Your task to perform on an android device: turn off javascript in the chrome app Image 0: 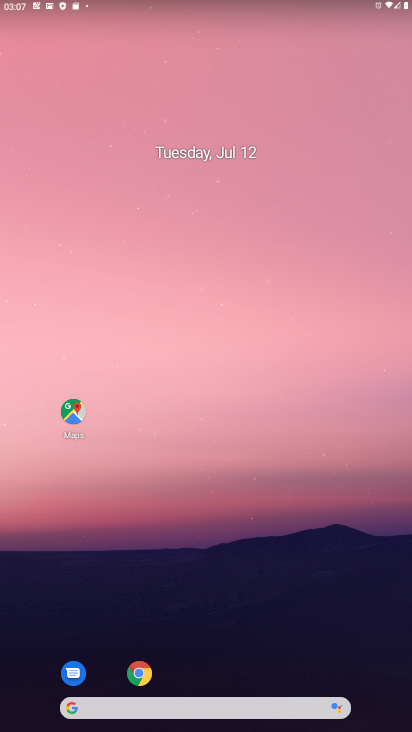
Step 0: press home button
Your task to perform on an android device: turn off javascript in the chrome app Image 1: 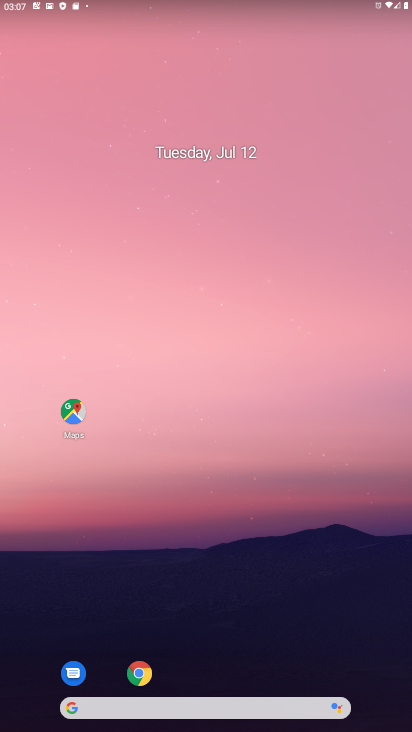
Step 1: press home button
Your task to perform on an android device: turn off javascript in the chrome app Image 2: 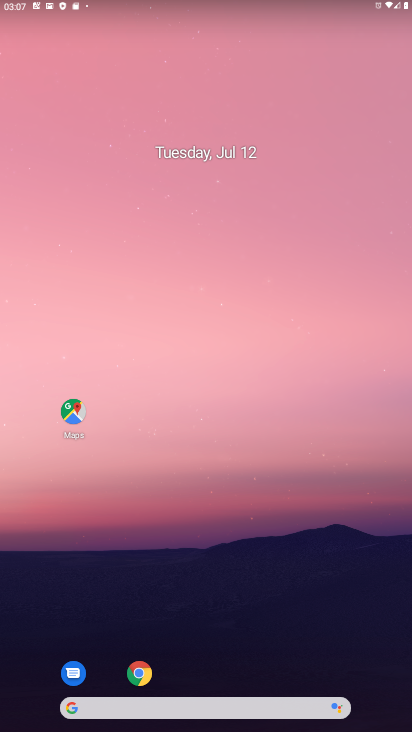
Step 2: drag from (260, 642) to (205, 55)
Your task to perform on an android device: turn off javascript in the chrome app Image 3: 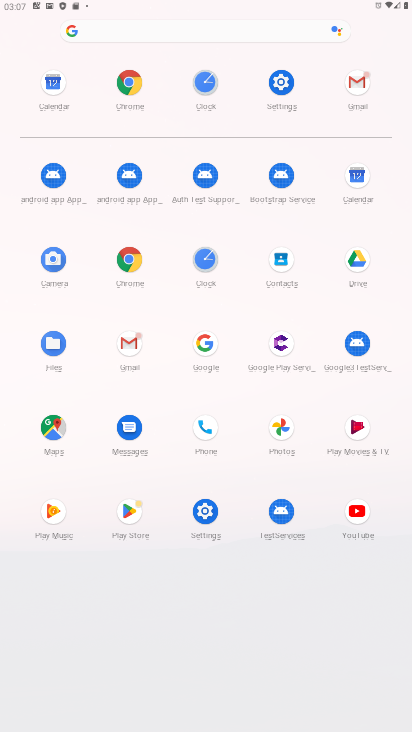
Step 3: click (126, 82)
Your task to perform on an android device: turn off javascript in the chrome app Image 4: 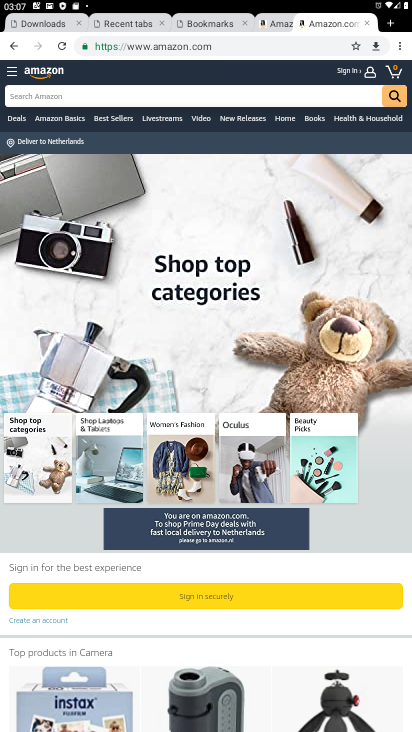
Step 4: drag from (395, 43) to (307, 307)
Your task to perform on an android device: turn off javascript in the chrome app Image 5: 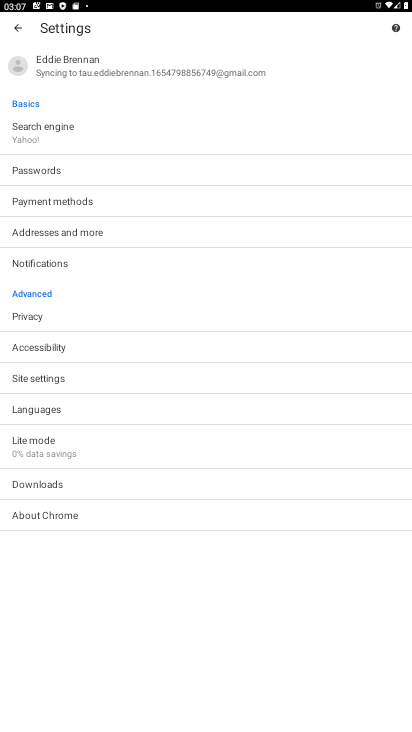
Step 5: click (52, 379)
Your task to perform on an android device: turn off javascript in the chrome app Image 6: 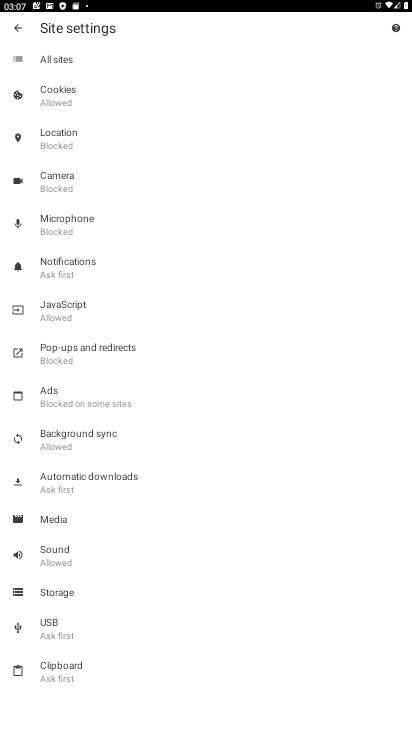
Step 6: click (61, 306)
Your task to perform on an android device: turn off javascript in the chrome app Image 7: 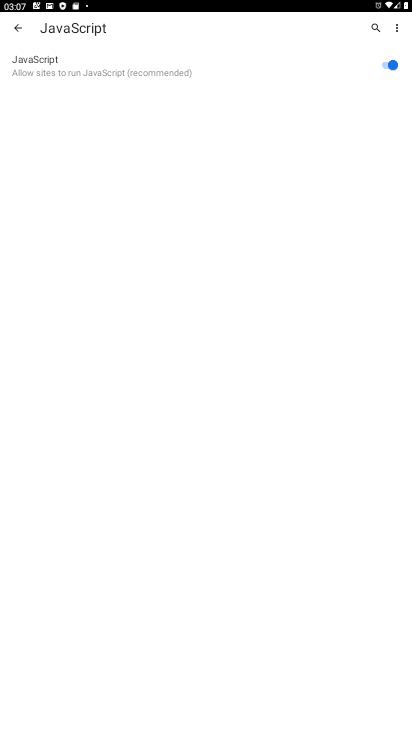
Step 7: click (383, 61)
Your task to perform on an android device: turn off javascript in the chrome app Image 8: 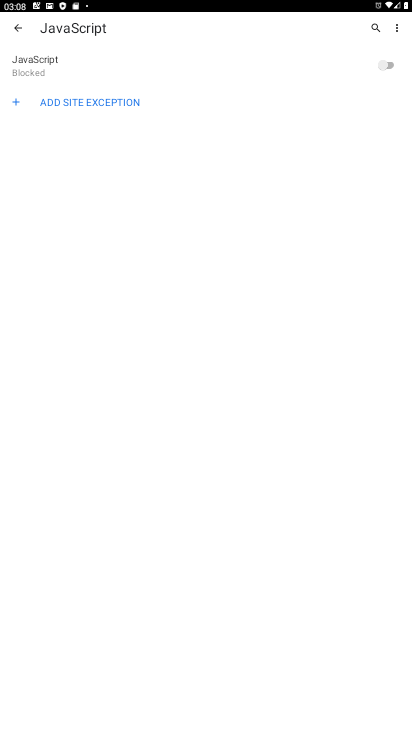
Step 8: task complete